Your task to perform on an android device: Search for the best rated headphones on Walmart Image 0: 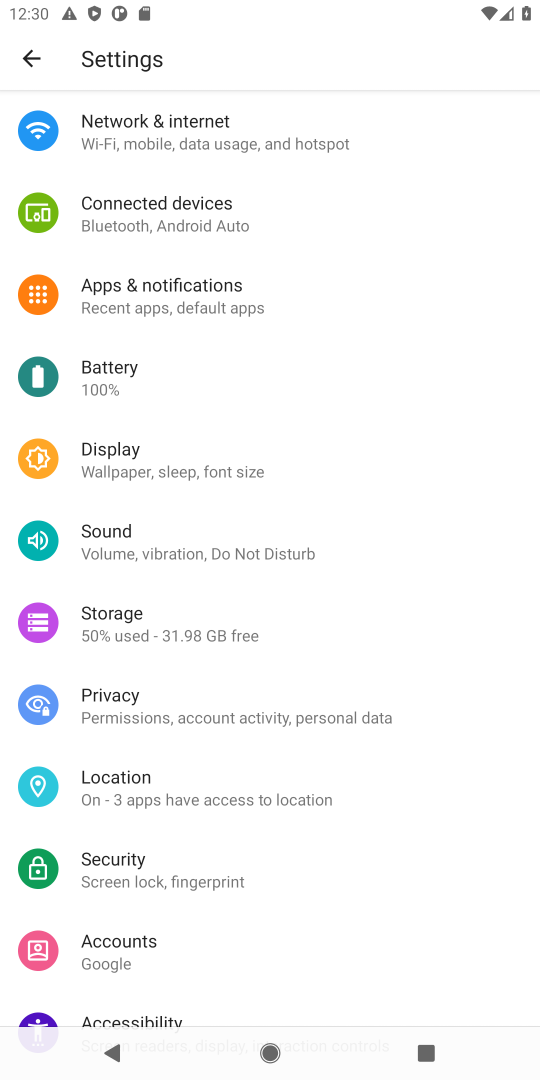
Step 0: press home button
Your task to perform on an android device: Search for the best rated headphones on Walmart Image 1: 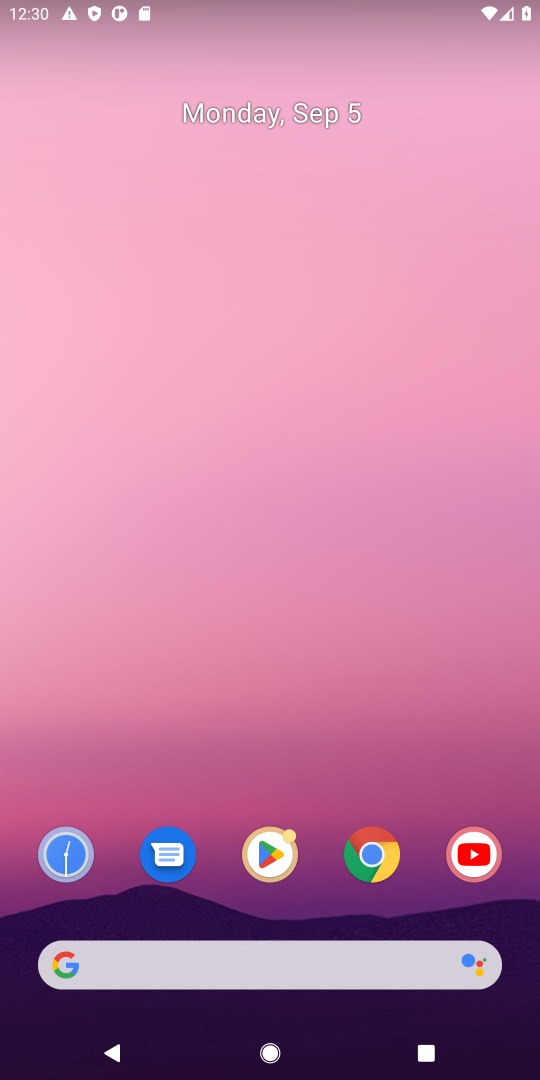
Step 1: click (218, 956)
Your task to perform on an android device: Search for the best rated headphones on Walmart Image 2: 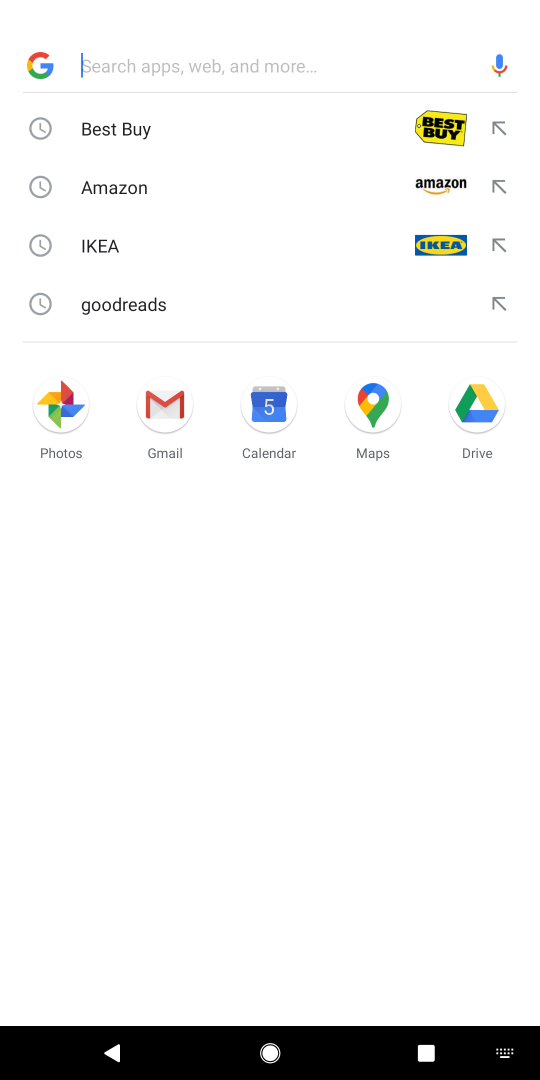
Step 2: type "walmart"
Your task to perform on an android device: Search for the best rated headphones on Walmart Image 3: 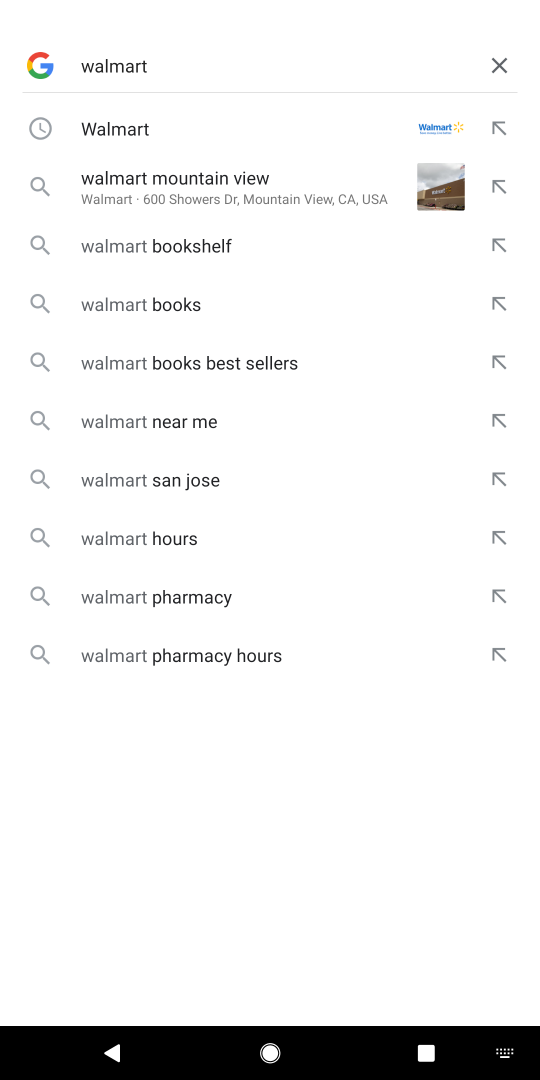
Step 3: press enter
Your task to perform on an android device: Search for the best rated headphones on Walmart Image 4: 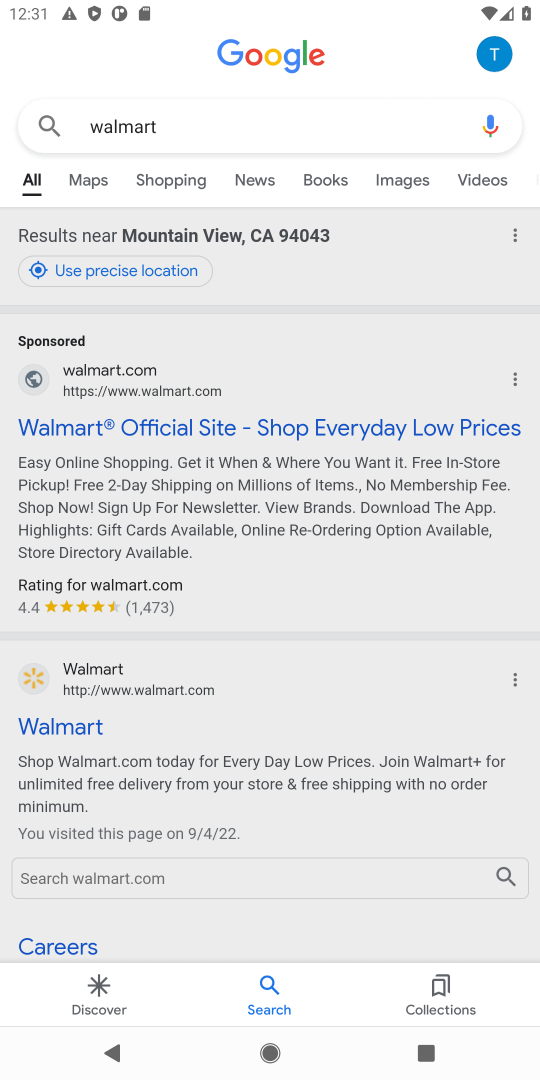
Step 4: click (223, 430)
Your task to perform on an android device: Search for the best rated headphones on Walmart Image 5: 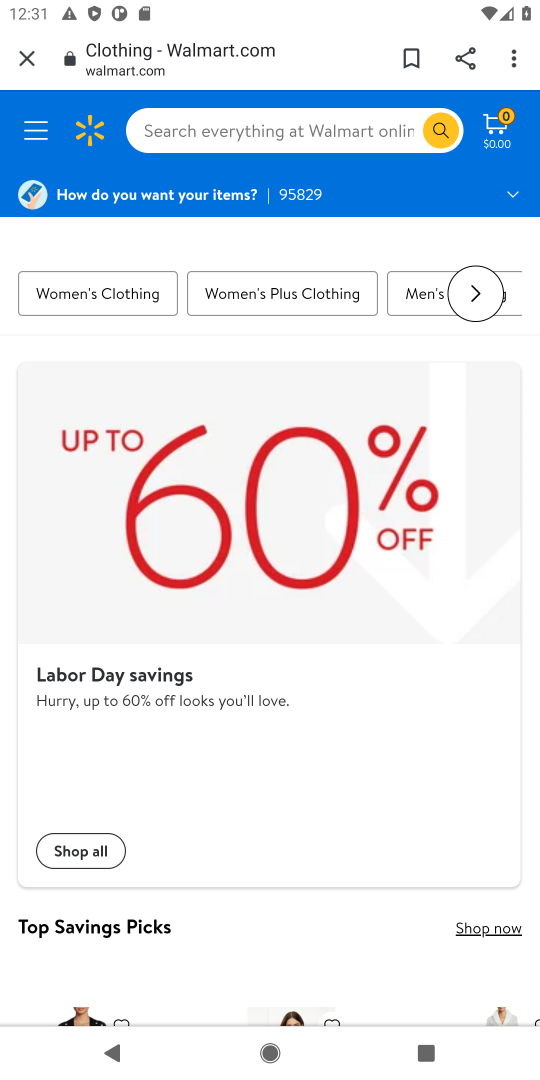
Step 5: click (222, 124)
Your task to perform on an android device: Search for the best rated headphones on Walmart Image 6: 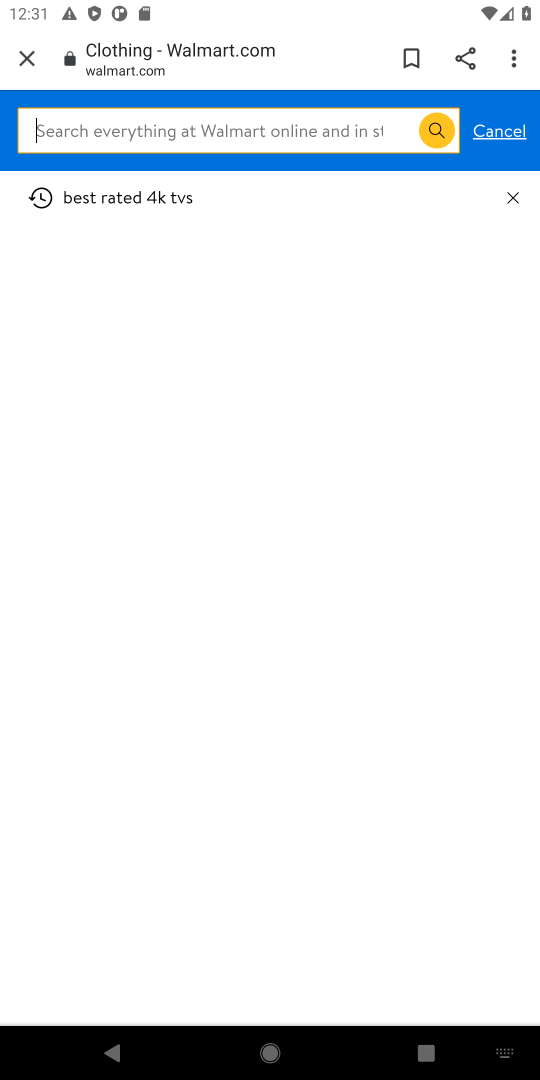
Step 6: type "best rated headphones"
Your task to perform on an android device: Search for the best rated headphones on Walmart Image 7: 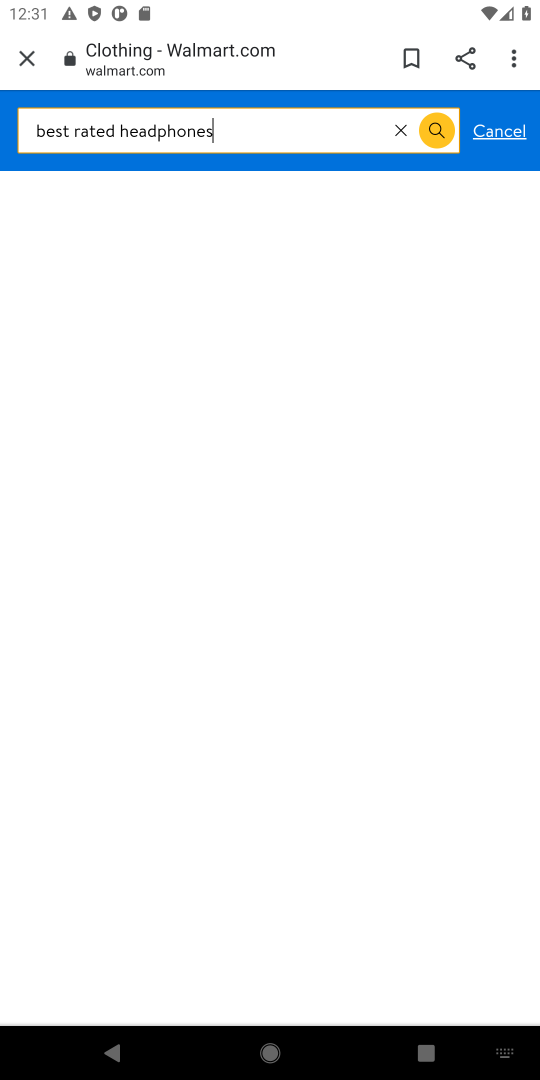
Step 7: press enter
Your task to perform on an android device: Search for the best rated headphones on Walmart Image 8: 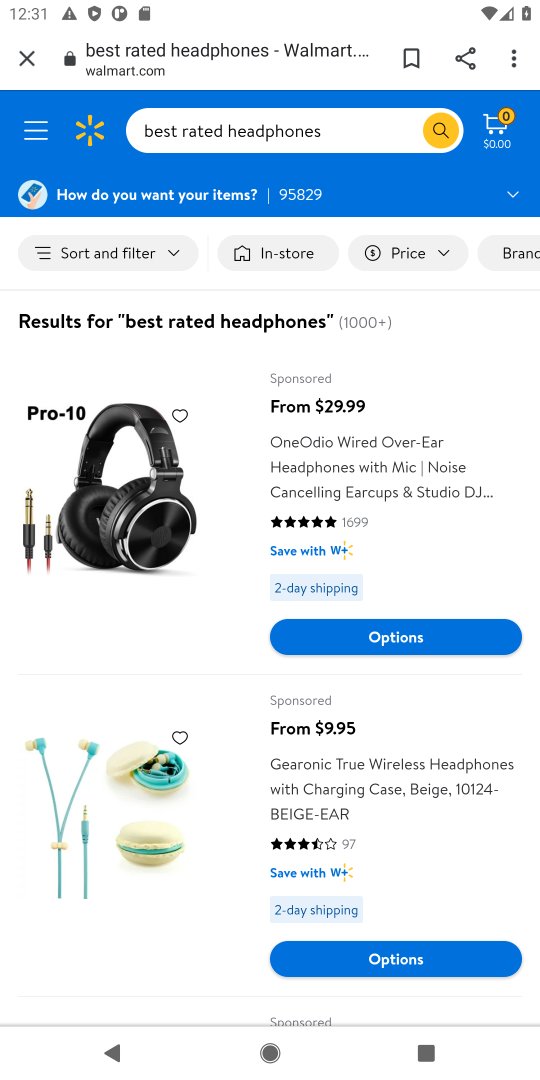
Step 8: task complete